Your task to perform on an android device: turn off translation in the chrome app Image 0: 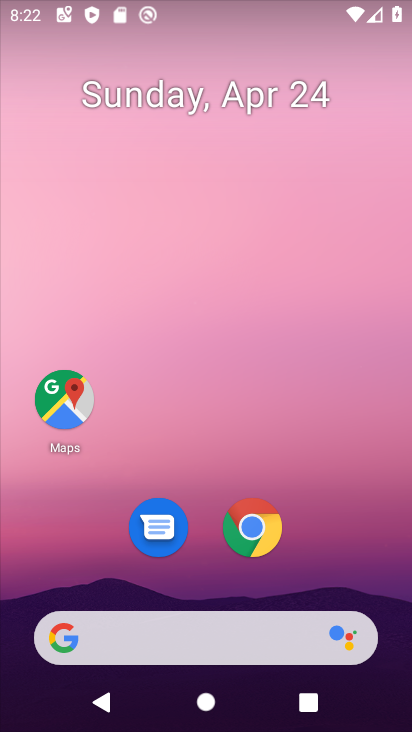
Step 0: drag from (389, 603) to (221, 7)
Your task to perform on an android device: turn off translation in the chrome app Image 1: 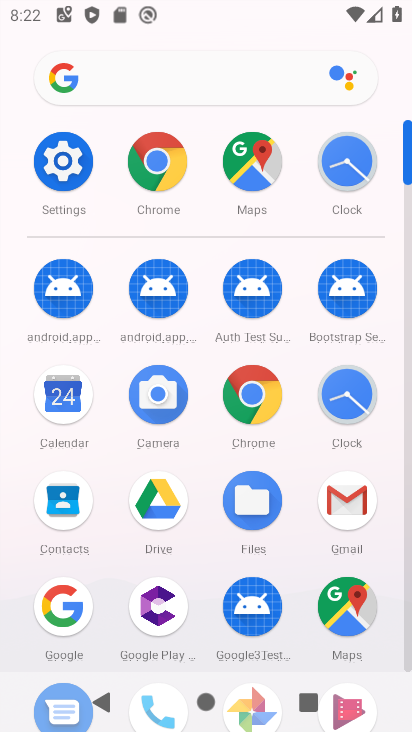
Step 1: click (170, 162)
Your task to perform on an android device: turn off translation in the chrome app Image 2: 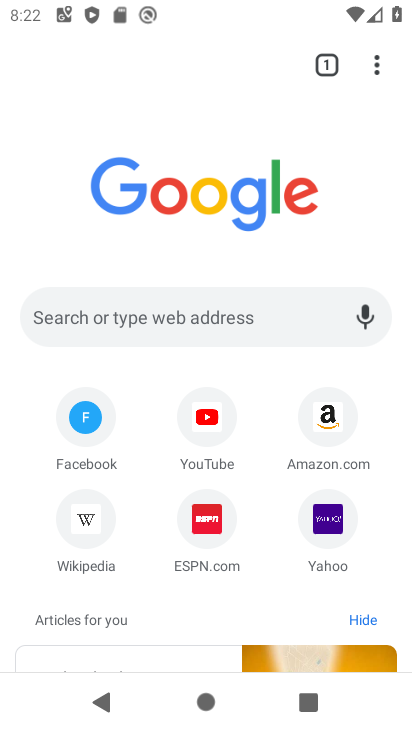
Step 2: click (378, 64)
Your task to perform on an android device: turn off translation in the chrome app Image 3: 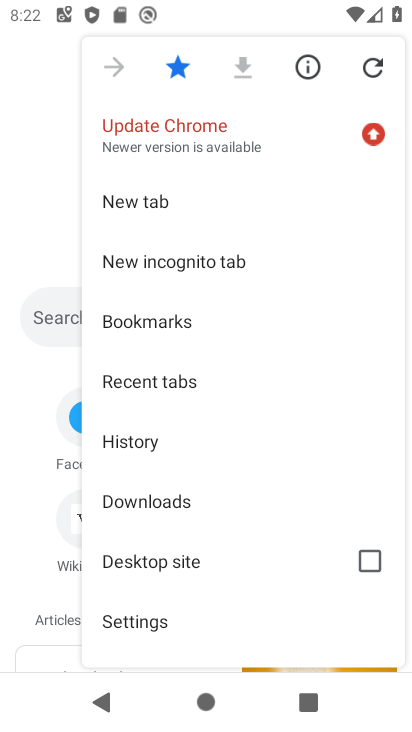
Step 3: click (170, 631)
Your task to perform on an android device: turn off translation in the chrome app Image 4: 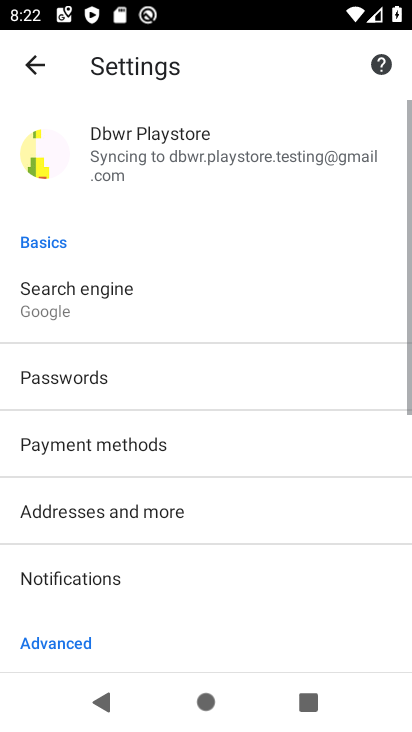
Step 4: drag from (137, 604) to (186, 101)
Your task to perform on an android device: turn off translation in the chrome app Image 5: 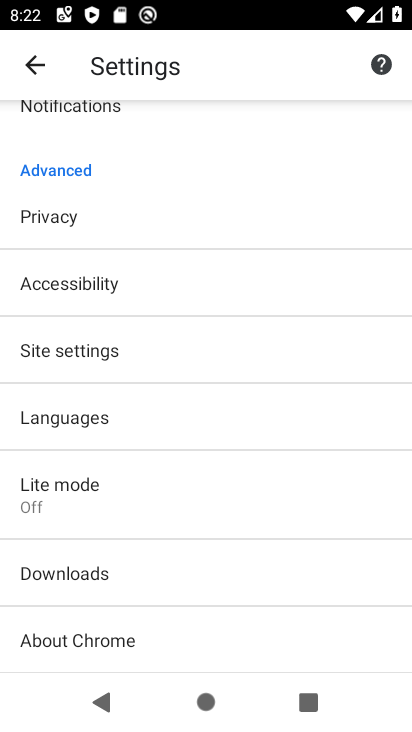
Step 5: click (120, 421)
Your task to perform on an android device: turn off translation in the chrome app Image 6: 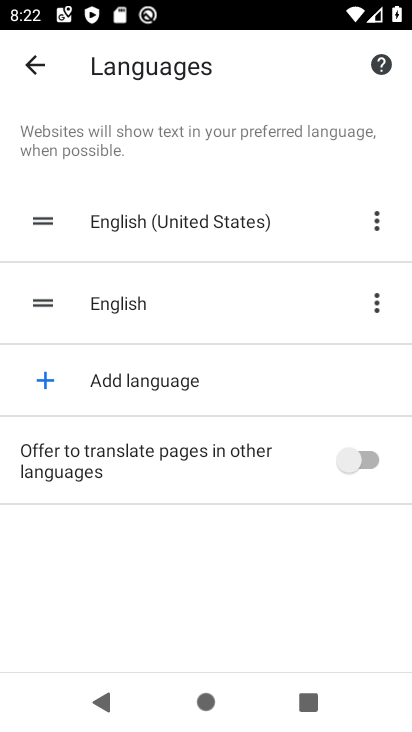
Step 6: task complete